Your task to perform on an android device: Search for seafood restaurants on Google Maps Image 0: 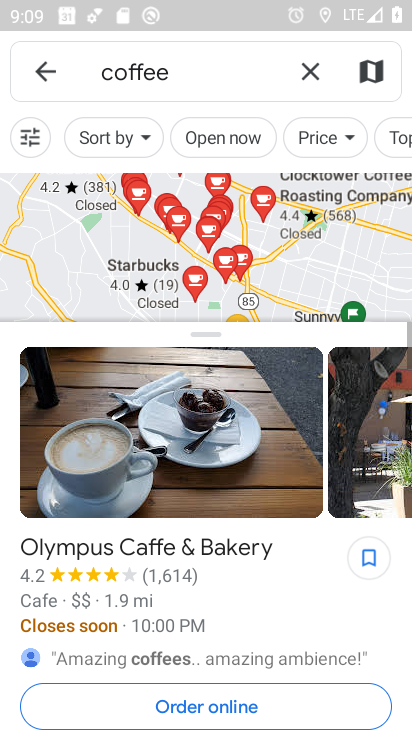
Step 0: click (304, 64)
Your task to perform on an android device: Search for seafood restaurants on Google Maps Image 1: 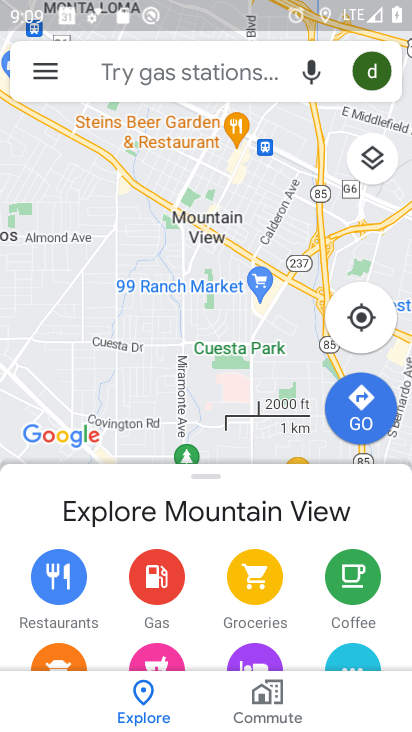
Step 1: click (235, 57)
Your task to perform on an android device: Search for seafood restaurants on Google Maps Image 2: 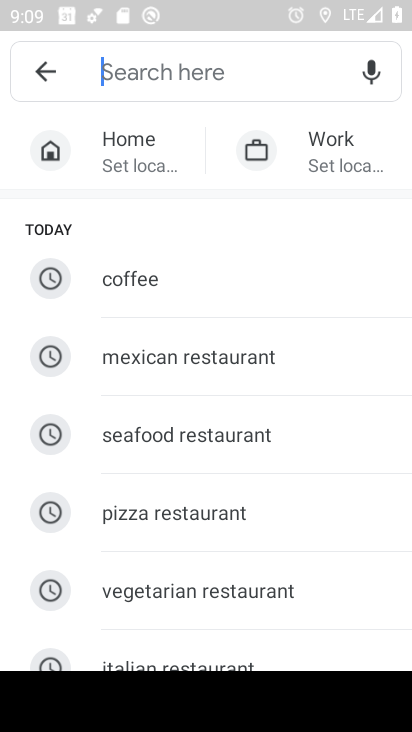
Step 2: click (218, 435)
Your task to perform on an android device: Search for seafood restaurants on Google Maps Image 3: 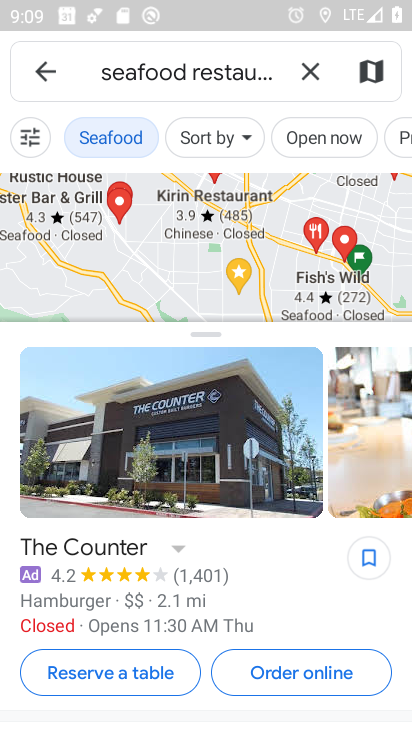
Step 3: task complete